Your task to perform on an android device: Open Wikipedia Image 0: 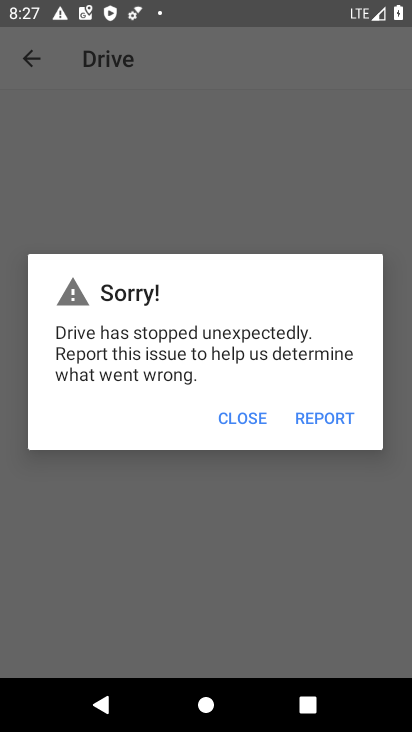
Step 0: press home button
Your task to perform on an android device: Open Wikipedia Image 1: 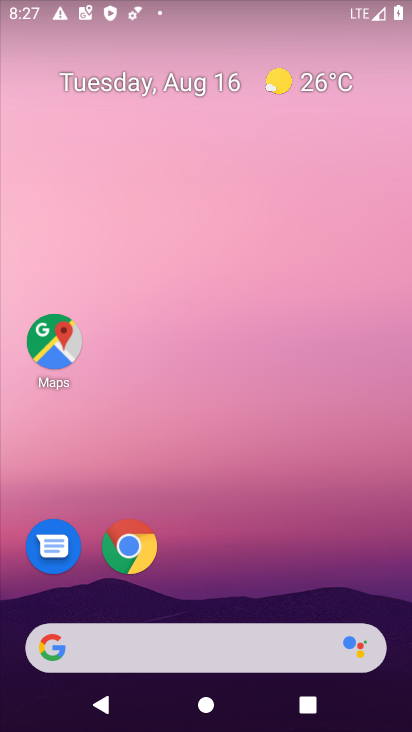
Step 1: drag from (272, 547) to (311, 130)
Your task to perform on an android device: Open Wikipedia Image 2: 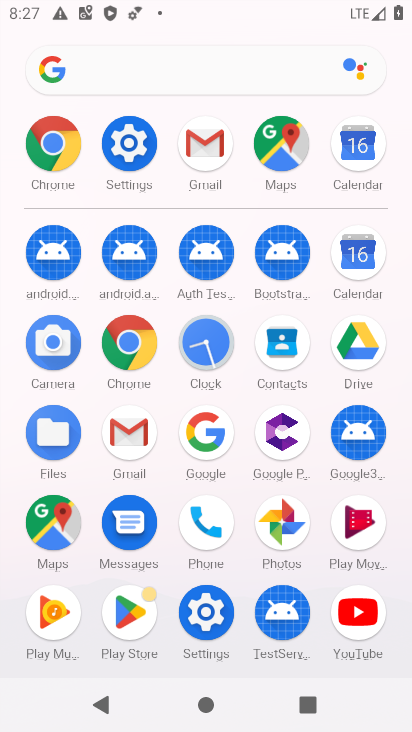
Step 2: click (58, 142)
Your task to perform on an android device: Open Wikipedia Image 3: 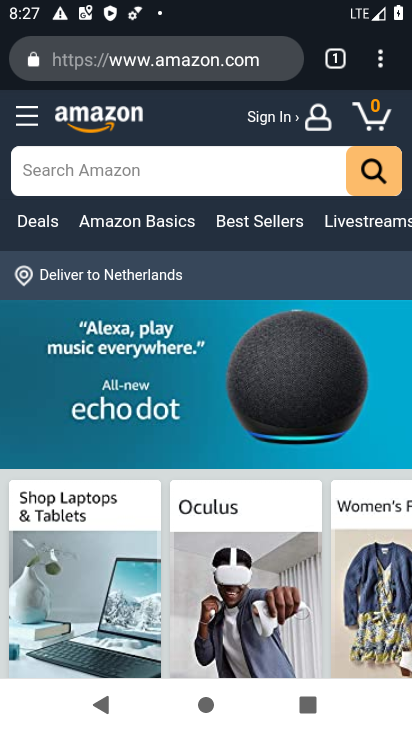
Step 3: press back button
Your task to perform on an android device: Open Wikipedia Image 4: 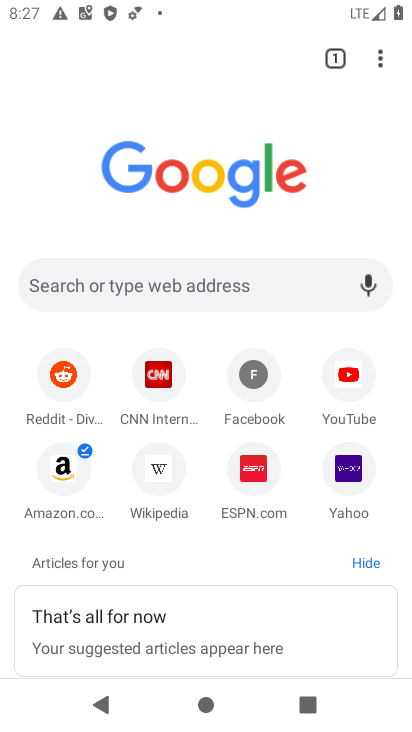
Step 4: click (163, 464)
Your task to perform on an android device: Open Wikipedia Image 5: 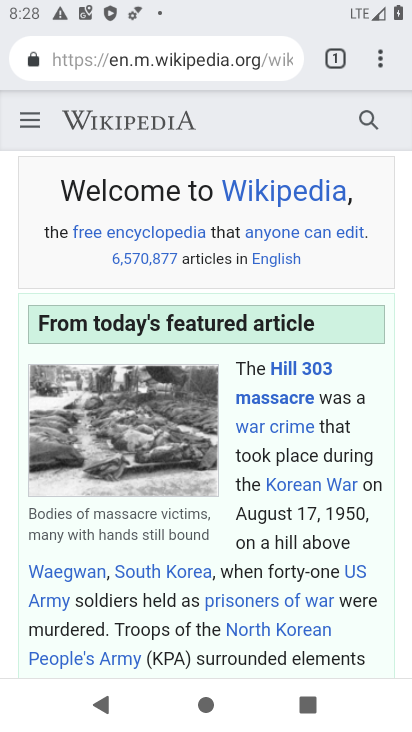
Step 5: task complete